Your task to perform on an android device: turn off translation in the chrome app Image 0: 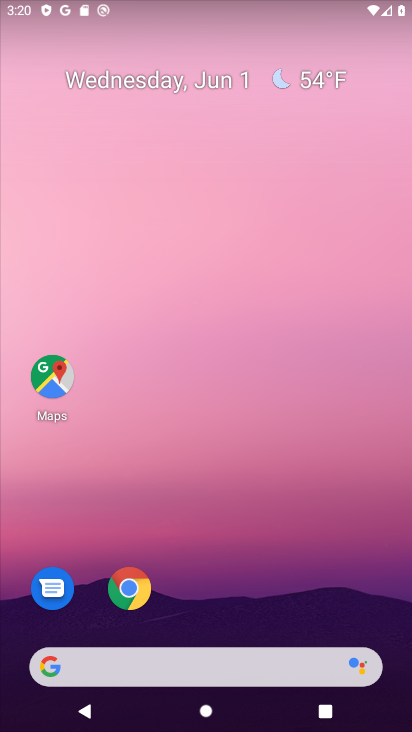
Step 0: click (143, 585)
Your task to perform on an android device: turn off translation in the chrome app Image 1: 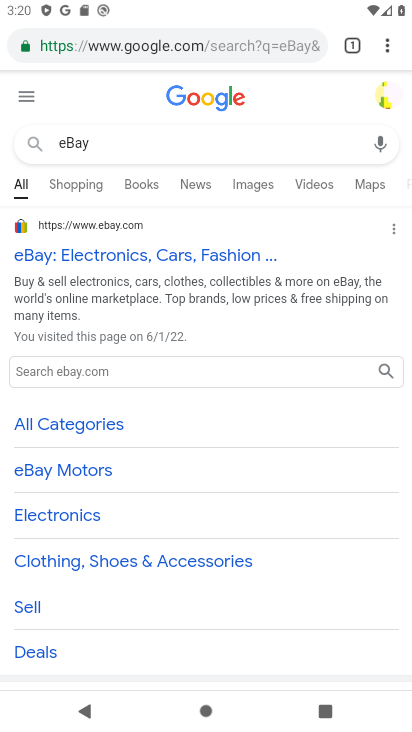
Step 1: click (391, 45)
Your task to perform on an android device: turn off translation in the chrome app Image 2: 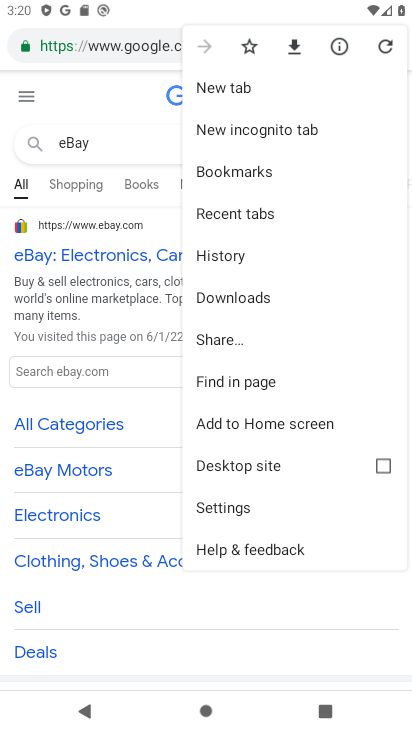
Step 2: click (250, 508)
Your task to perform on an android device: turn off translation in the chrome app Image 3: 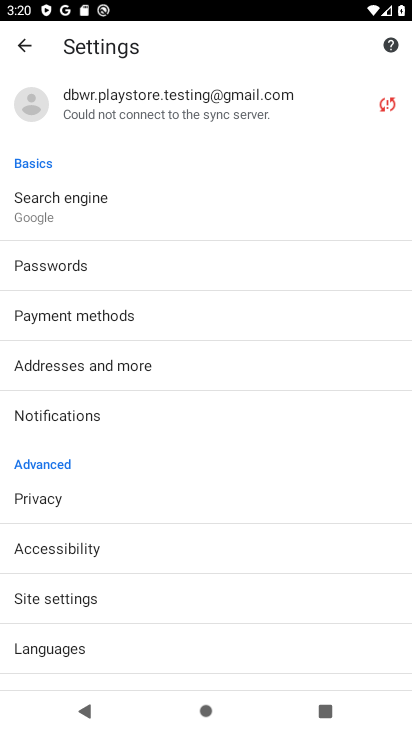
Step 3: drag from (120, 611) to (144, 491)
Your task to perform on an android device: turn off translation in the chrome app Image 4: 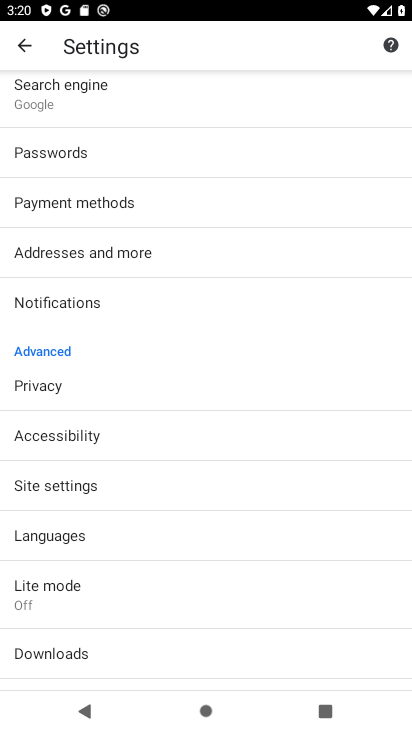
Step 4: click (94, 537)
Your task to perform on an android device: turn off translation in the chrome app Image 5: 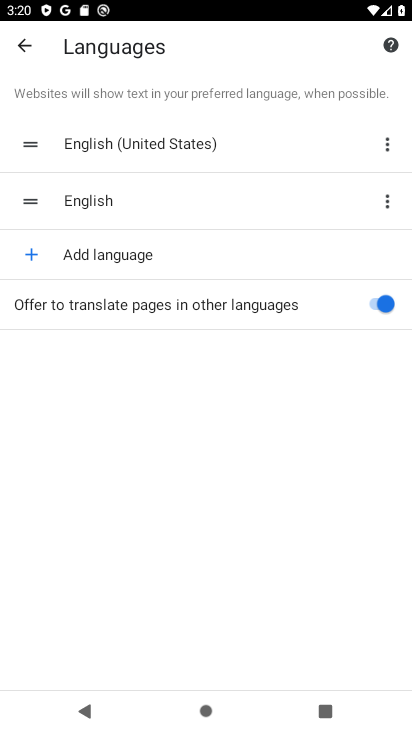
Step 5: click (351, 307)
Your task to perform on an android device: turn off translation in the chrome app Image 6: 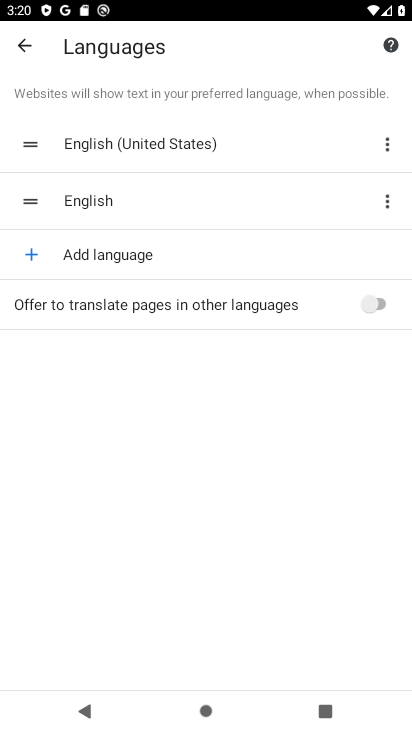
Step 6: task complete